Your task to perform on an android device: turn off notifications in google photos Image 0: 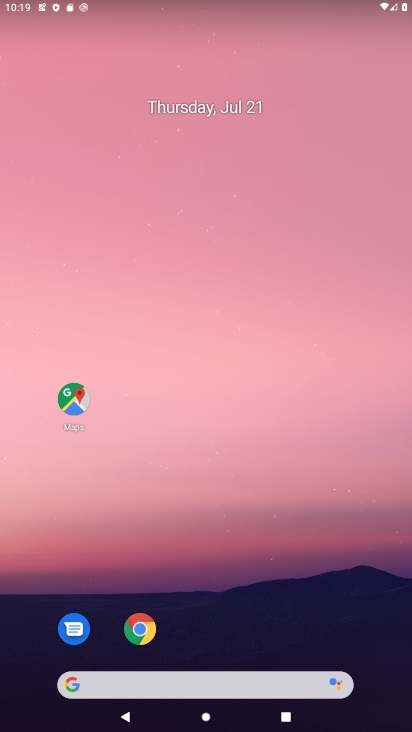
Step 0: press home button
Your task to perform on an android device: turn off notifications in google photos Image 1: 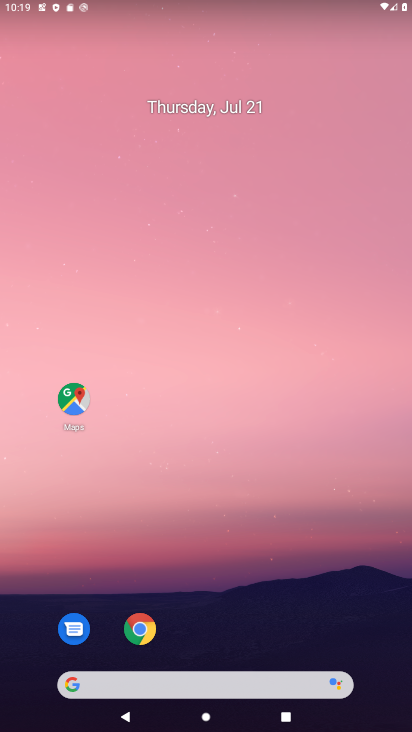
Step 1: drag from (335, 623) to (352, 255)
Your task to perform on an android device: turn off notifications in google photos Image 2: 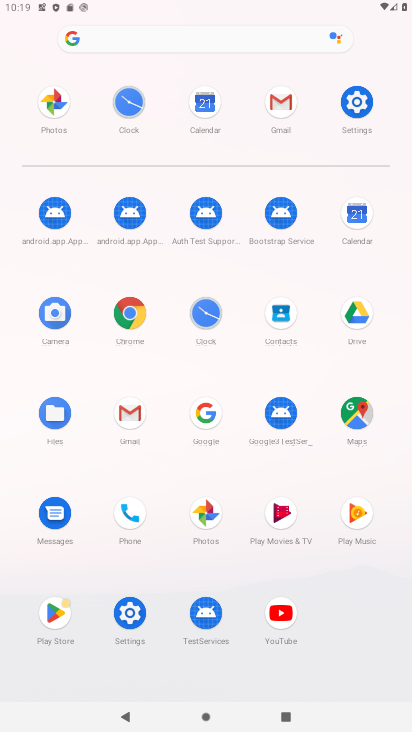
Step 2: click (213, 511)
Your task to perform on an android device: turn off notifications in google photos Image 3: 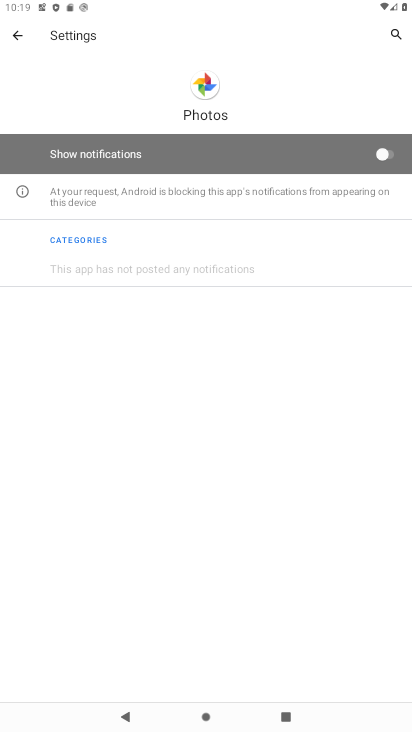
Step 3: task complete